Your task to perform on an android device: turn off translation in the chrome app Image 0: 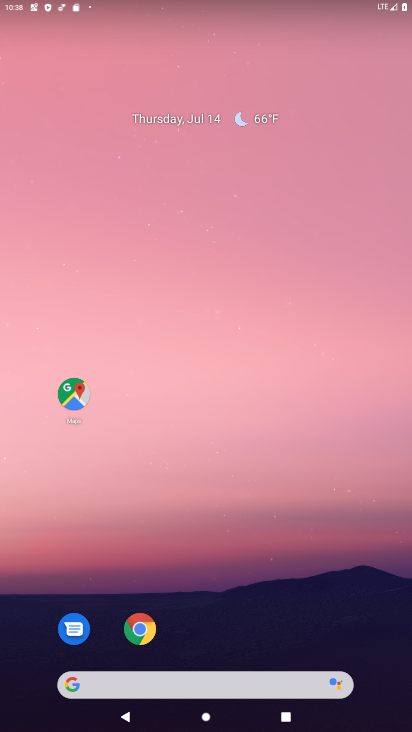
Step 0: press home button
Your task to perform on an android device: turn off translation in the chrome app Image 1: 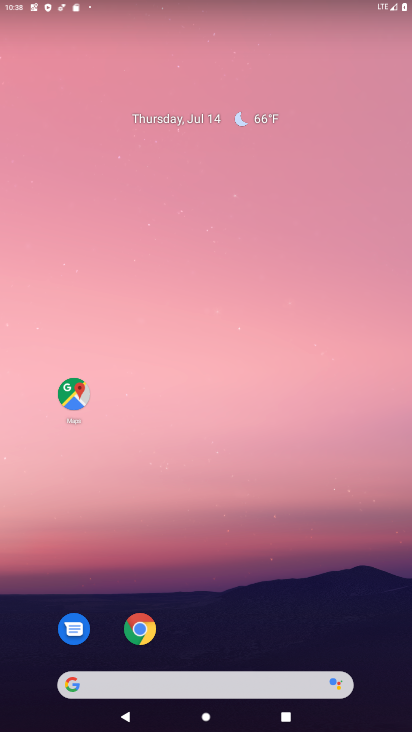
Step 1: click (147, 625)
Your task to perform on an android device: turn off translation in the chrome app Image 2: 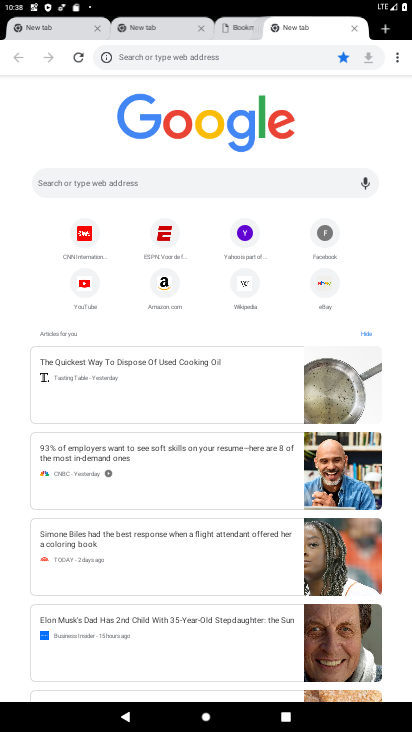
Step 2: drag from (394, 56) to (280, 264)
Your task to perform on an android device: turn off translation in the chrome app Image 3: 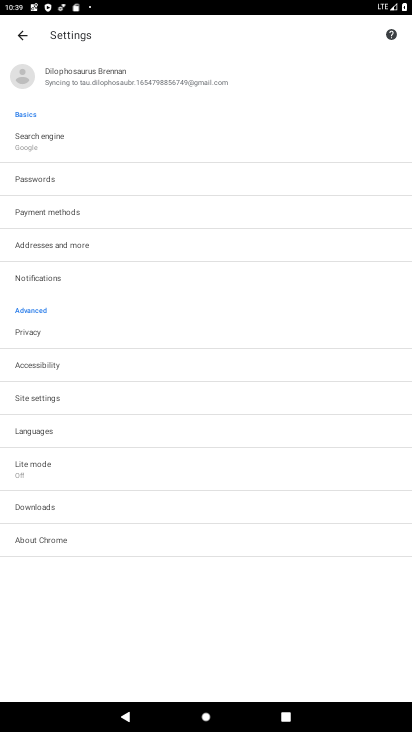
Step 3: click (37, 432)
Your task to perform on an android device: turn off translation in the chrome app Image 4: 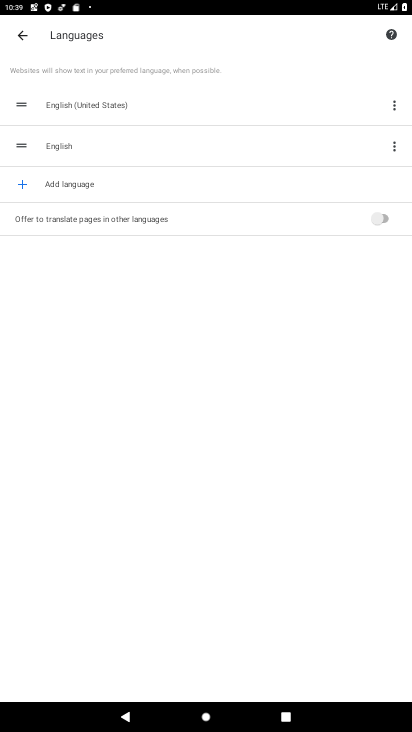
Step 4: task complete